Your task to perform on an android device: delete browsing data in the chrome app Image 0: 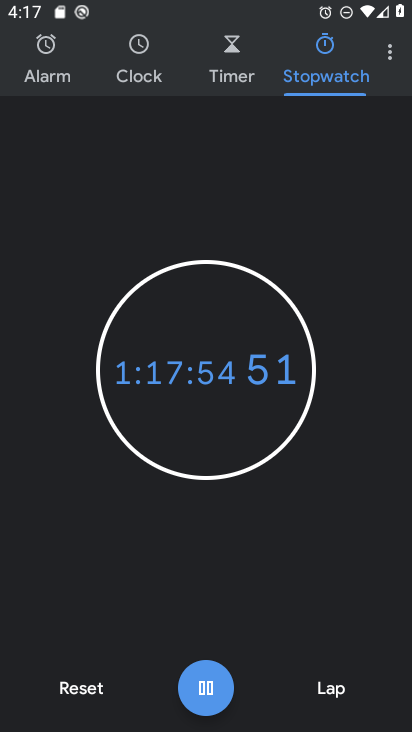
Step 0: click (391, 57)
Your task to perform on an android device: delete browsing data in the chrome app Image 1: 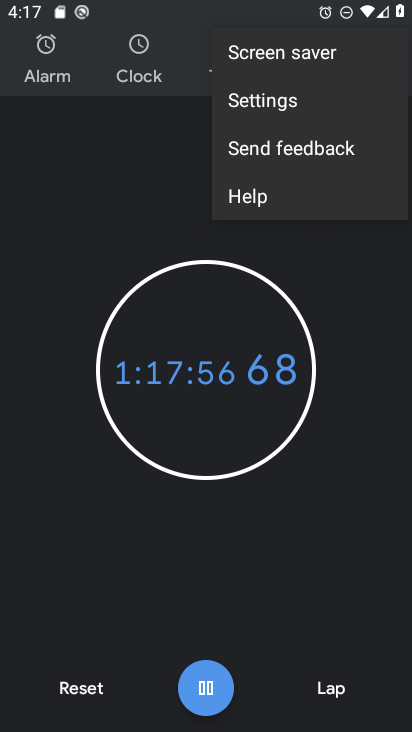
Step 1: press home button
Your task to perform on an android device: delete browsing data in the chrome app Image 2: 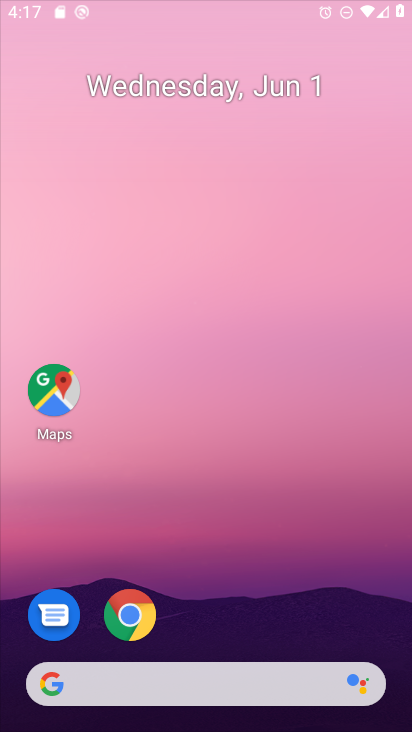
Step 2: drag from (295, 580) to (251, 3)
Your task to perform on an android device: delete browsing data in the chrome app Image 3: 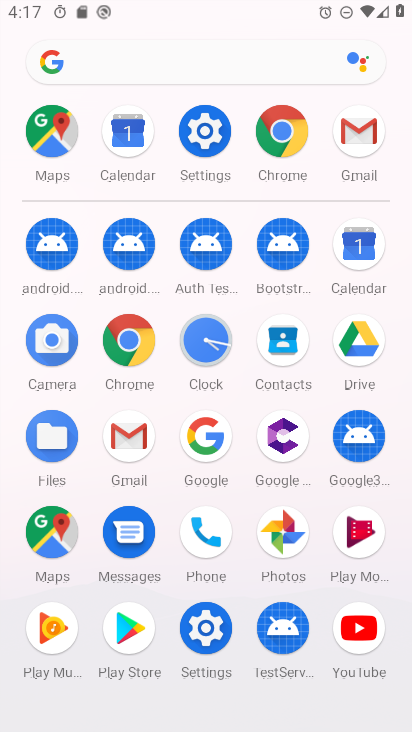
Step 3: click (135, 346)
Your task to perform on an android device: delete browsing data in the chrome app Image 4: 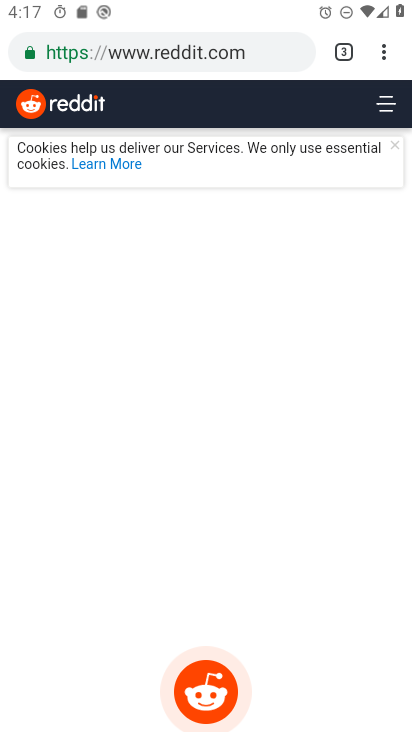
Step 4: drag from (388, 55) to (272, 284)
Your task to perform on an android device: delete browsing data in the chrome app Image 5: 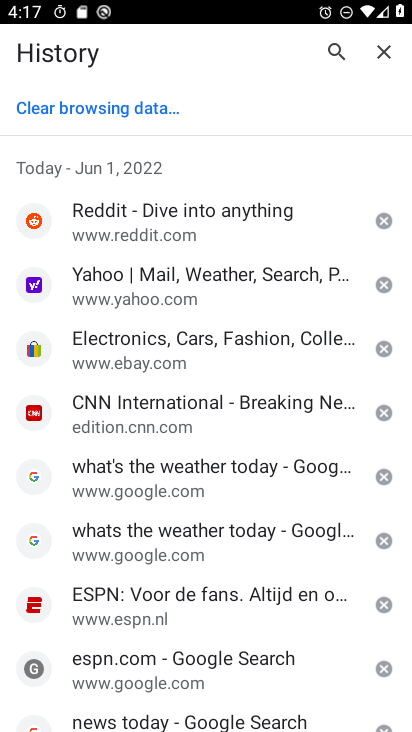
Step 5: click (68, 97)
Your task to perform on an android device: delete browsing data in the chrome app Image 6: 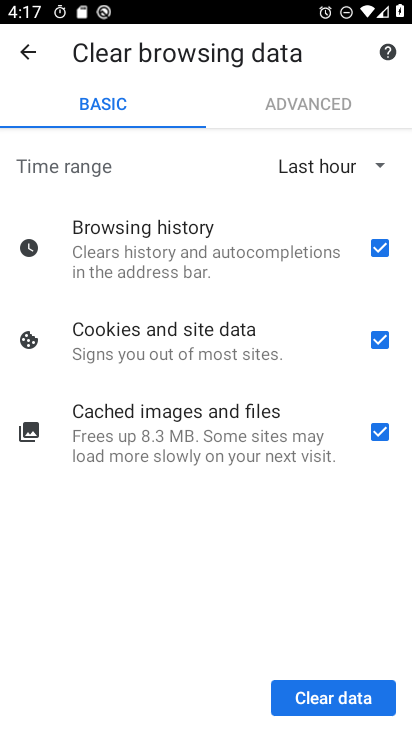
Step 6: click (372, 699)
Your task to perform on an android device: delete browsing data in the chrome app Image 7: 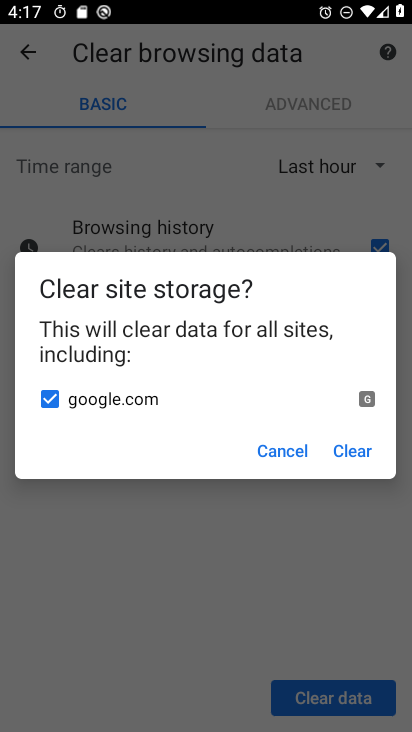
Step 7: click (371, 458)
Your task to perform on an android device: delete browsing data in the chrome app Image 8: 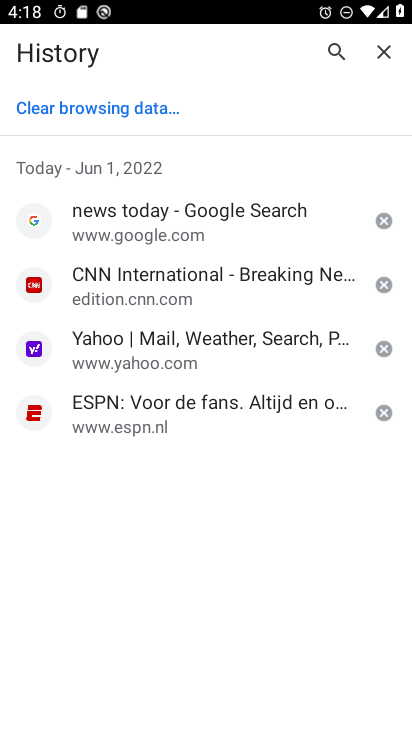
Step 8: click (387, 222)
Your task to perform on an android device: delete browsing data in the chrome app Image 9: 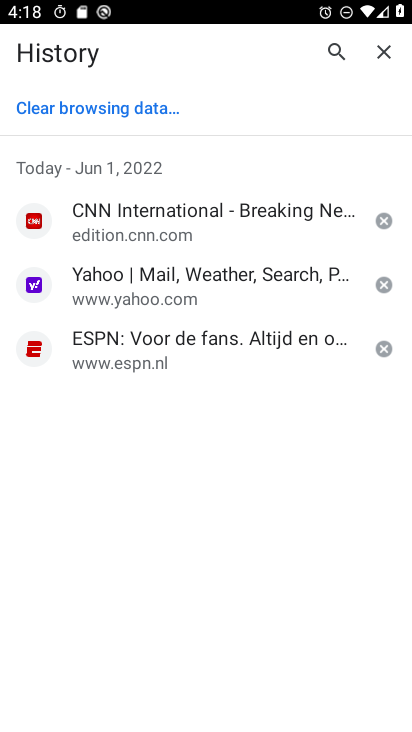
Step 9: click (382, 219)
Your task to perform on an android device: delete browsing data in the chrome app Image 10: 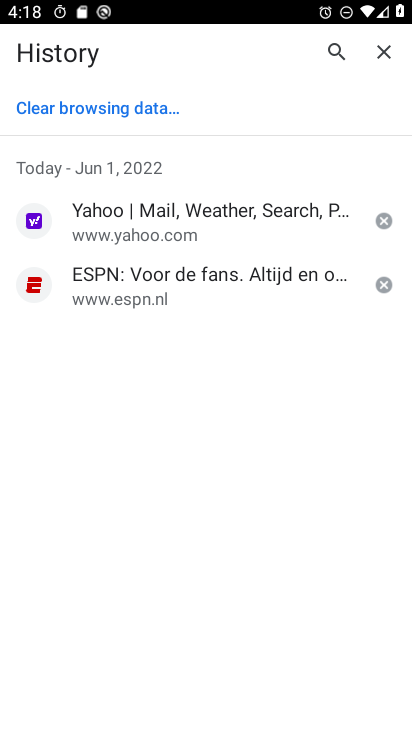
Step 10: click (384, 225)
Your task to perform on an android device: delete browsing data in the chrome app Image 11: 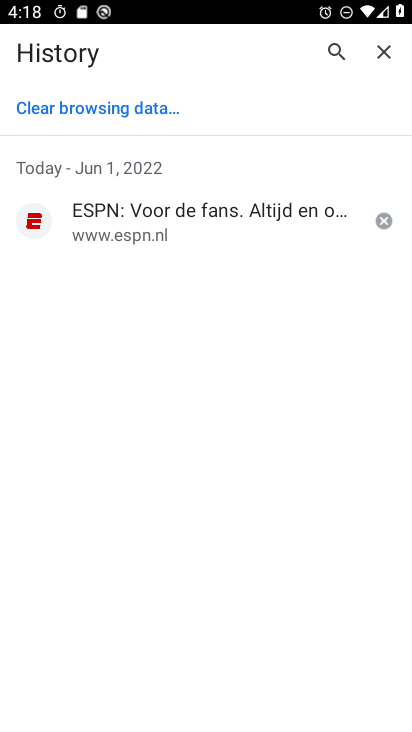
Step 11: click (387, 223)
Your task to perform on an android device: delete browsing data in the chrome app Image 12: 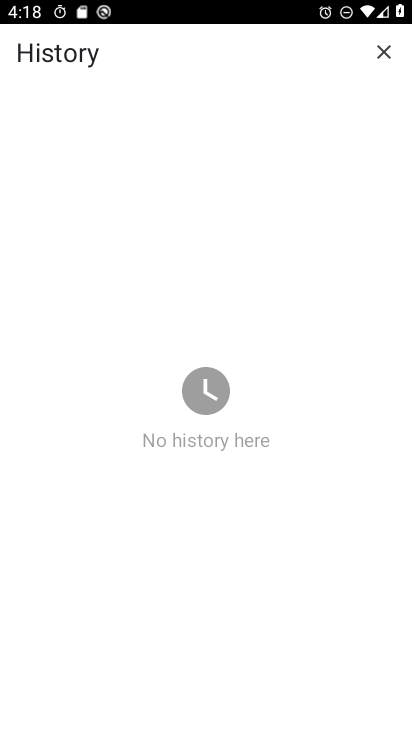
Step 12: task complete